Your task to perform on an android device: Do I have any events today? Image 0: 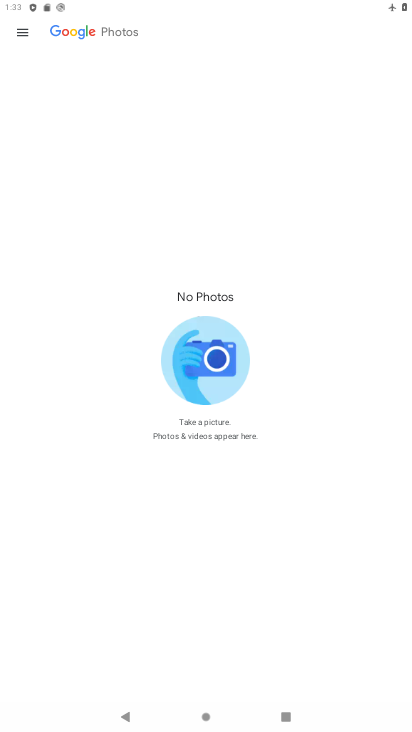
Step 0: press home button
Your task to perform on an android device: Do I have any events today? Image 1: 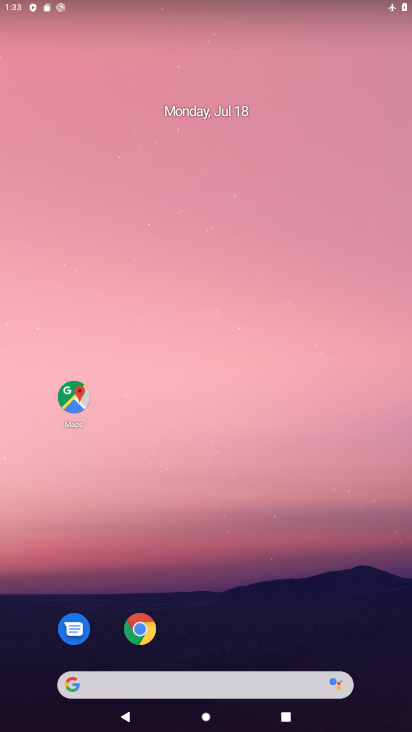
Step 1: drag from (254, 575) to (300, 107)
Your task to perform on an android device: Do I have any events today? Image 2: 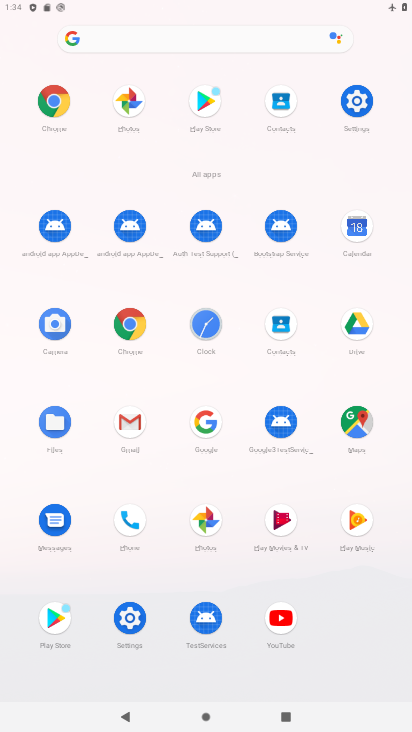
Step 2: click (363, 231)
Your task to perform on an android device: Do I have any events today? Image 3: 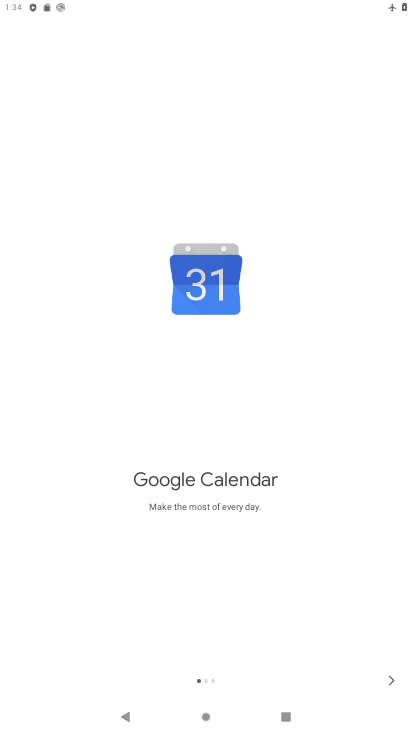
Step 3: drag from (350, 0) to (354, 411)
Your task to perform on an android device: Do I have any events today? Image 4: 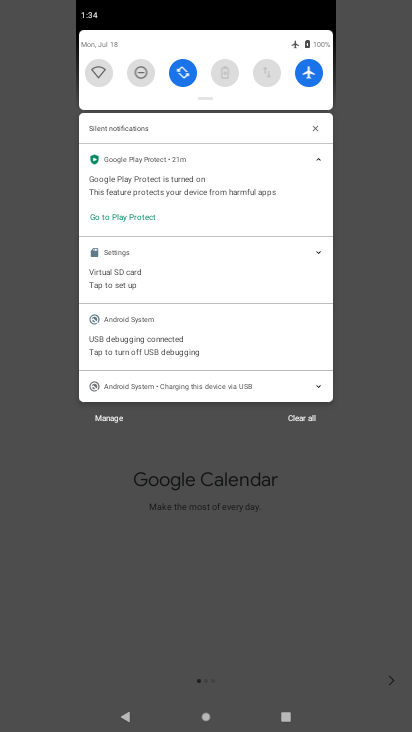
Step 4: click (313, 78)
Your task to perform on an android device: Do I have any events today? Image 5: 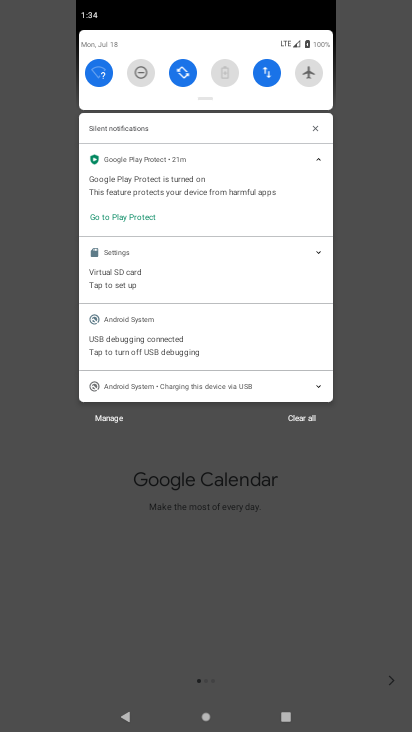
Step 5: click (277, 500)
Your task to perform on an android device: Do I have any events today? Image 6: 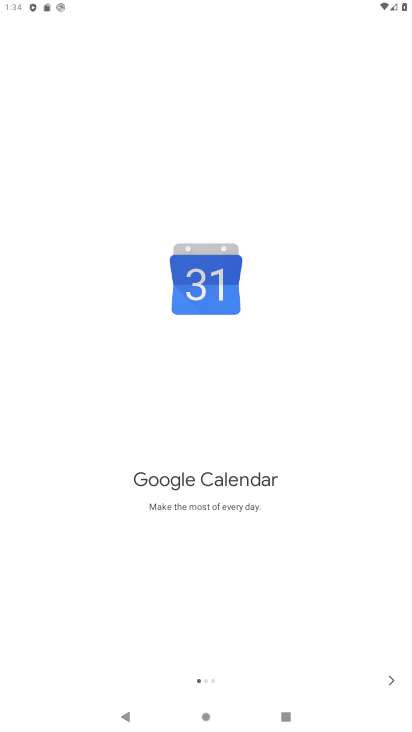
Step 6: click (393, 678)
Your task to perform on an android device: Do I have any events today? Image 7: 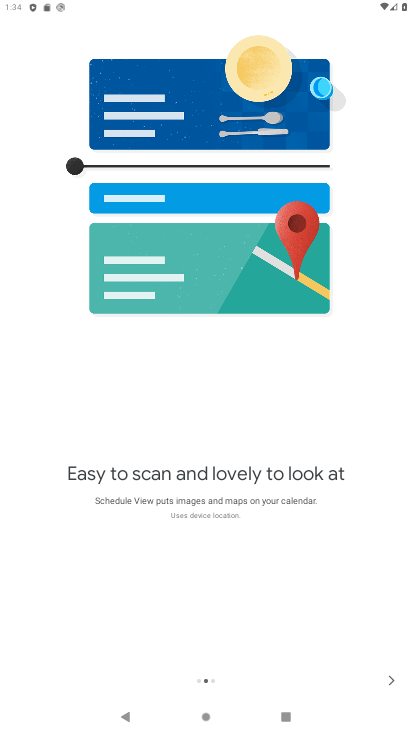
Step 7: click (393, 678)
Your task to perform on an android device: Do I have any events today? Image 8: 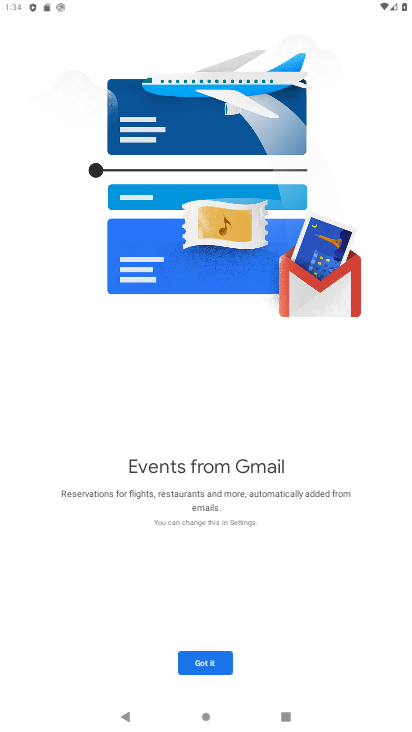
Step 8: click (218, 663)
Your task to perform on an android device: Do I have any events today? Image 9: 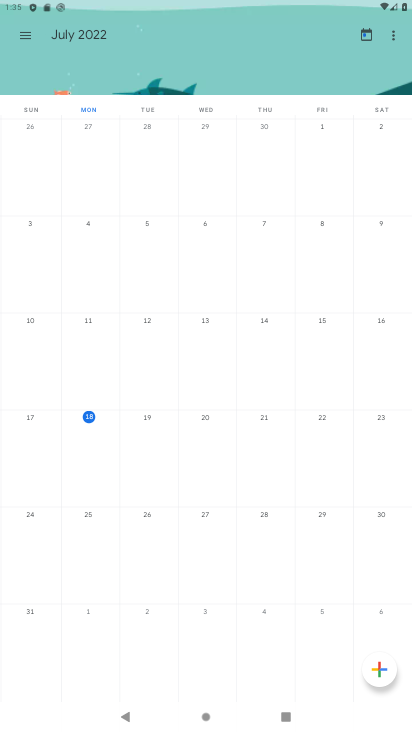
Step 9: task complete